Your task to perform on an android device: Go to internet settings Image 0: 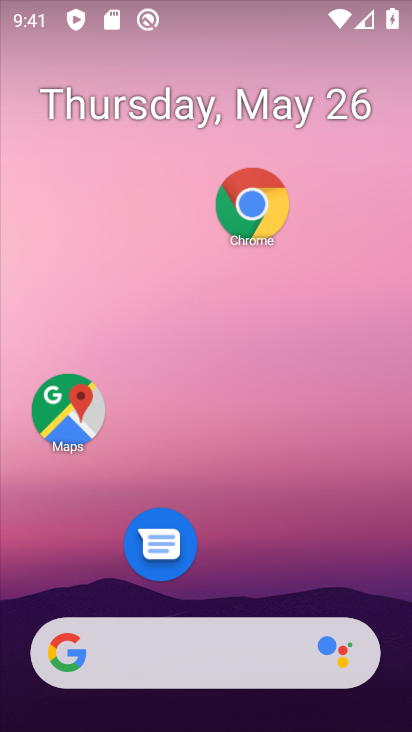
Step 0: press home button
Your task to perform on an android device: Go to internet settings Image 1: 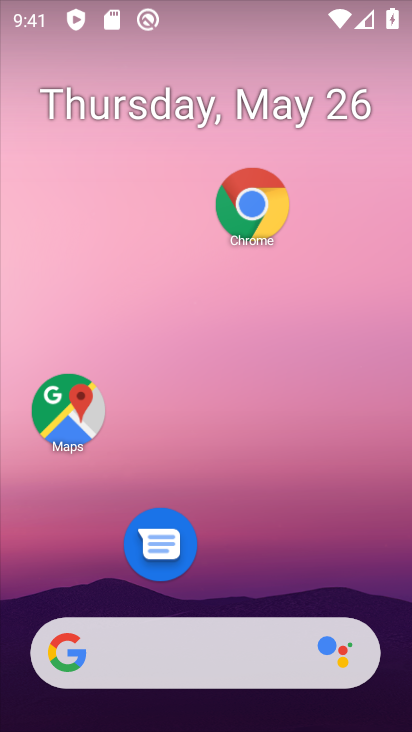
Step 1: drag from (223, 597) to (232, 40)
Your task to perform on an android device: Go to internet settings Image 2: 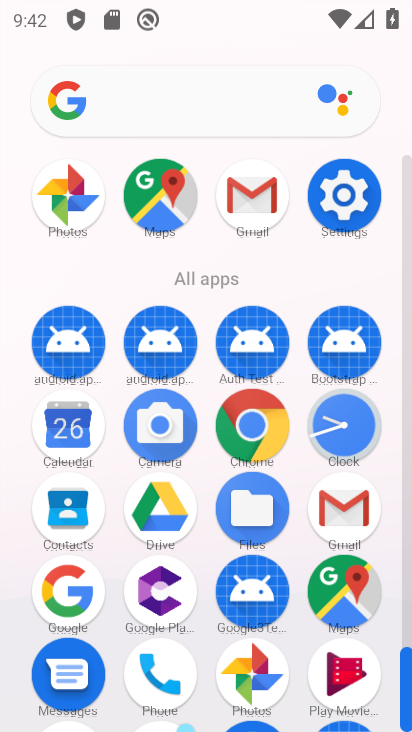
Step 2: click (341, 188)
Your task to perform on an android device: Go to internet settings Image 3: 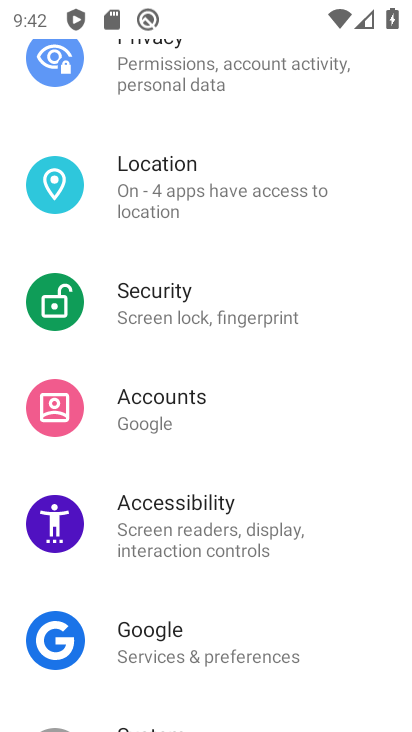
Step 3: drag from (98, 89) to (65, 671)
Your task to perform on an android device: Go to internet settings Image 4: 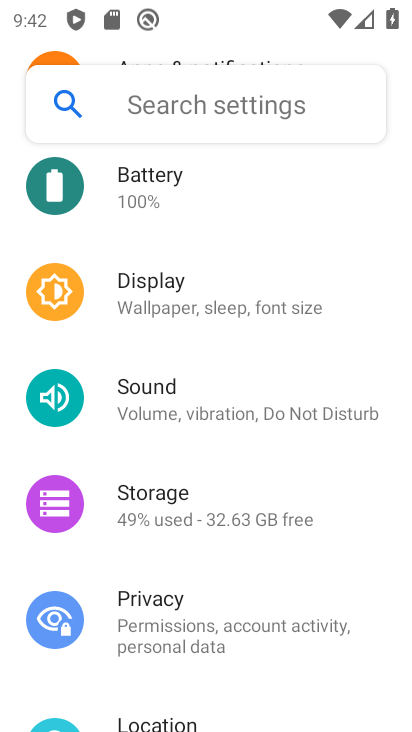
Step 4: drag from (106, 174) to (98, 677)
Your task to perform on an android device: Go to internet settings Image 5: 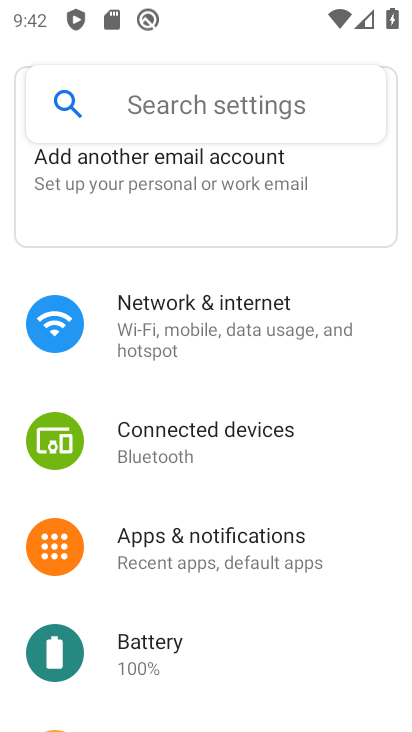
Step 5: click (103, 325)
Your task to perform on an android device: Go to internet settings Image 6: 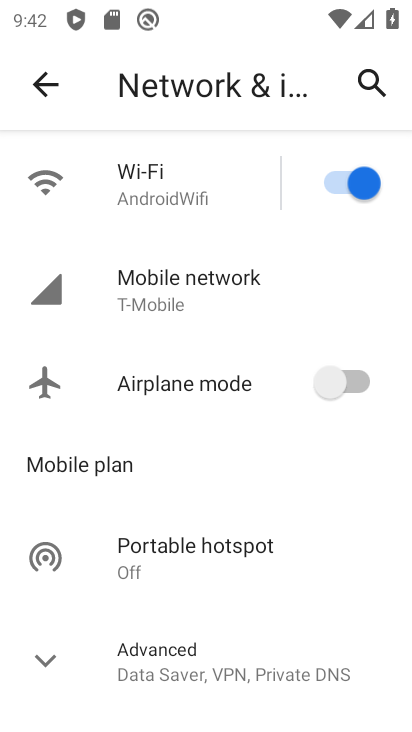
Step 6: click (48, 648)
Your task to perform on an android device: Go to internet settings Image 7: 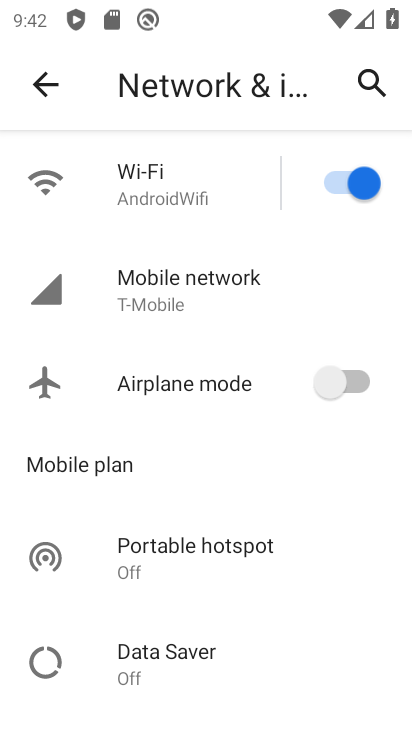
Step 7: task complete